Your task to perform on an android device: Check the weather Image 0: 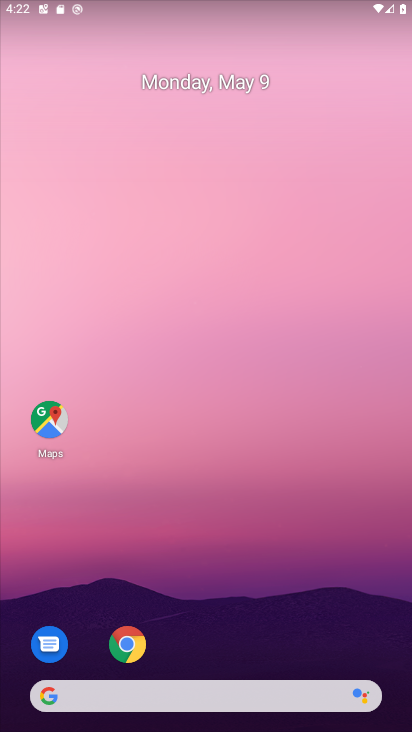
Step 0: drag from (219, 569) to (234, 215)
Your task to perform on an android device: Check the weather Image 1: 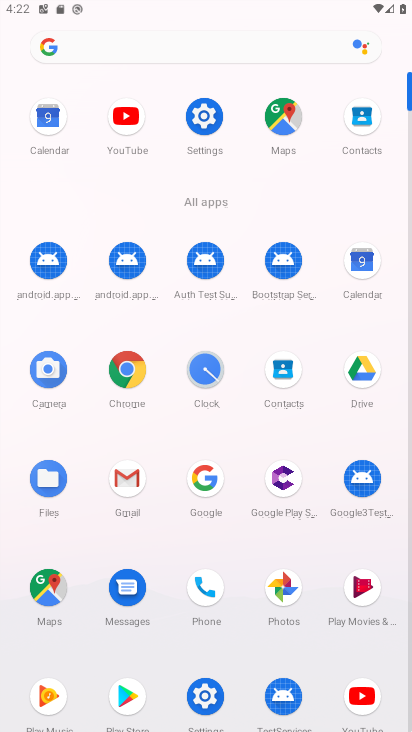
Step 1: click (206, 476)
Your task to perform on an android device: Check the weather Image 2: 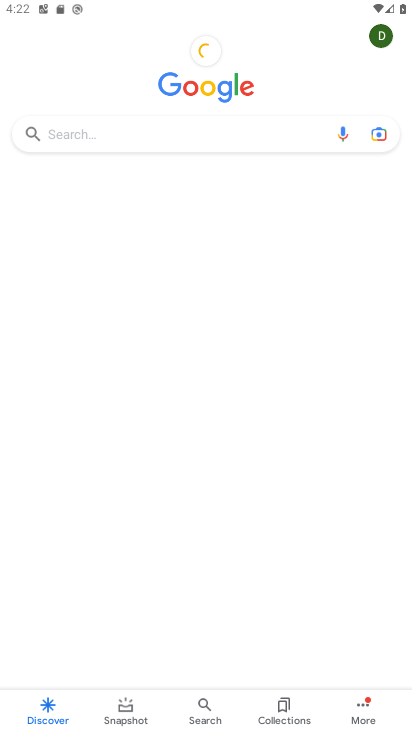
Step 2: click (112, 137)
Your task to perform on an android device: Check the weather Image 3: 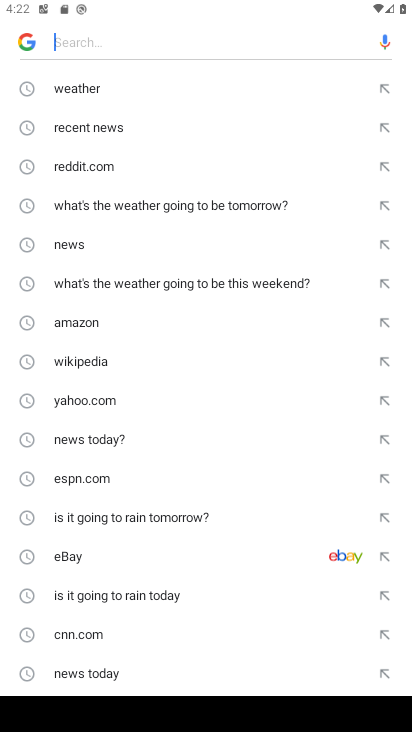
Step 3: click (80, 83)
Your task to perform on an android device: Check the weather Image 4: 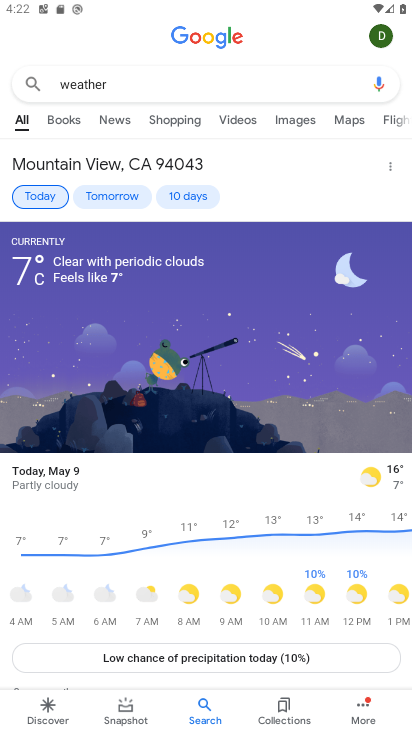
Step 4: task complete